Your task to perform on an android device: Open battery settings Image 0: 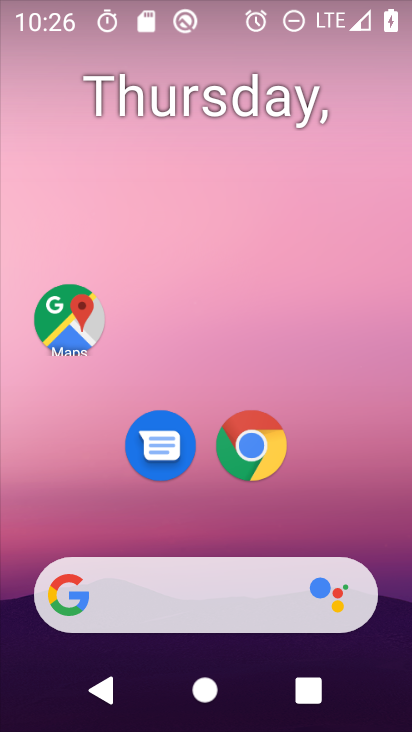
Step 0: drag from (213, 495) to (256, 152)
Your task to perform on an android device: Open battery settings Image 1: 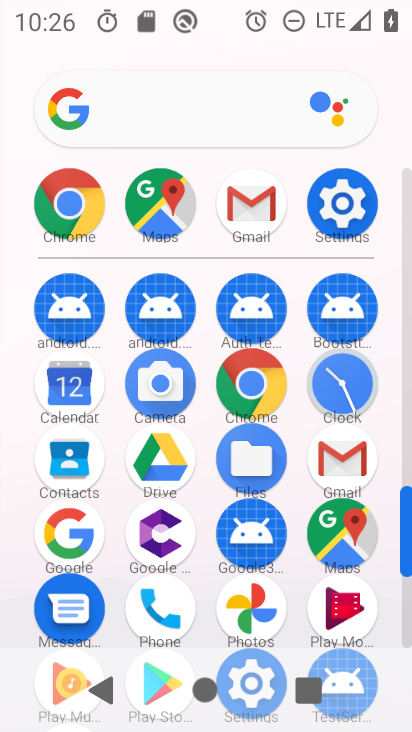
Step 1: click (347, 209)
Your task to perform on an android device: Open battery settings Image 2: 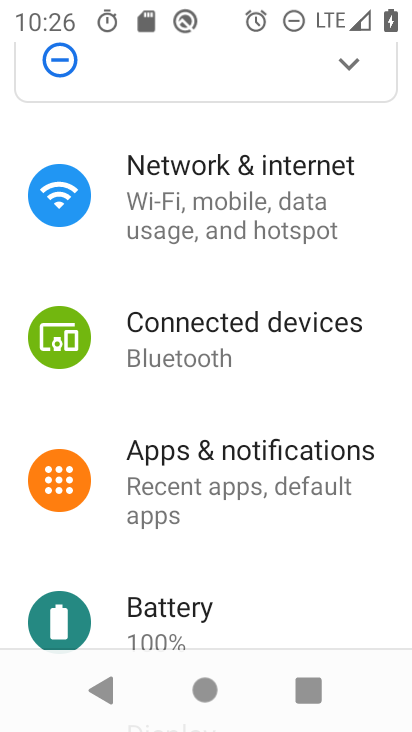
Step 2: click (199, 596)
Your task to perform on an android device: Open battery settings Image 3: 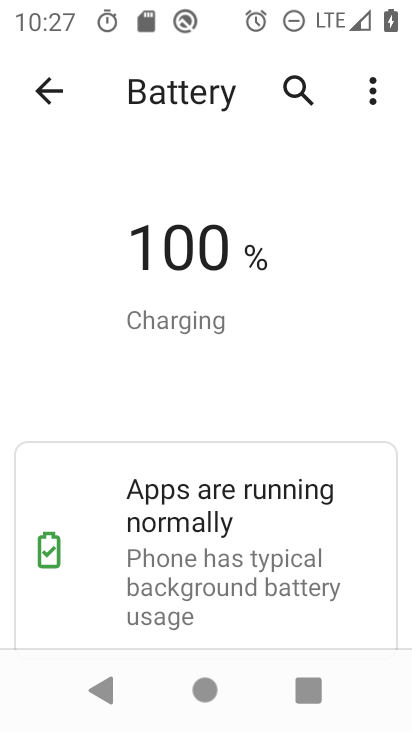
Step 3: drag from (256, 582) to (348, 265)
Your task to perform on an android device: Open battery settings Image 4: 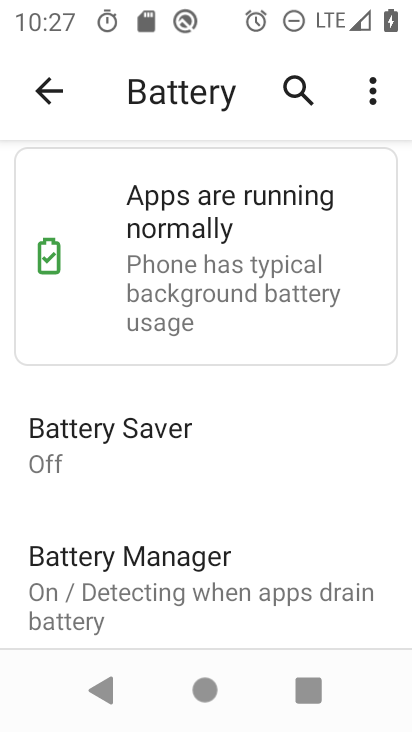
Step 4: click (294, 177)
Your task to perform on an android device: Open battery settings Image 5: 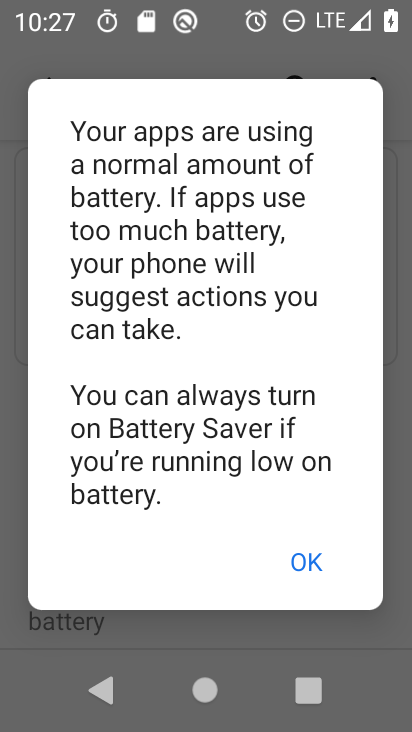
Step 5: task complete